Your task to perform on an android device: Clear all items from cart on walmart.com. Add razer blade to the cart on walmart.com, then select checkout. Image 0: 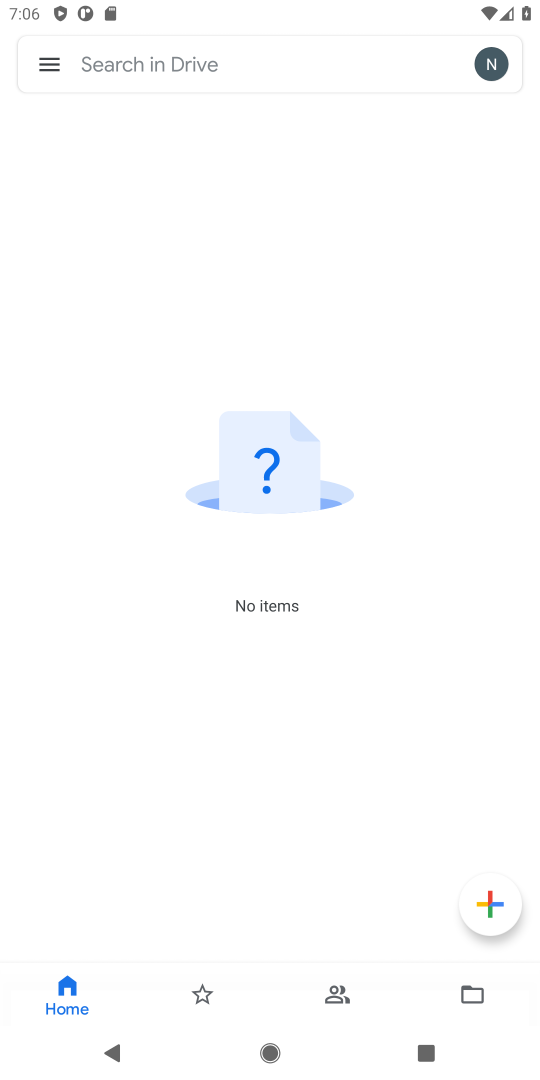
Step 0: press home button
Your task to perform on an android device: Clear all items from cart on walmart.com. Add razer blade to the cart on walmart.com, then select checkout. Image 1: 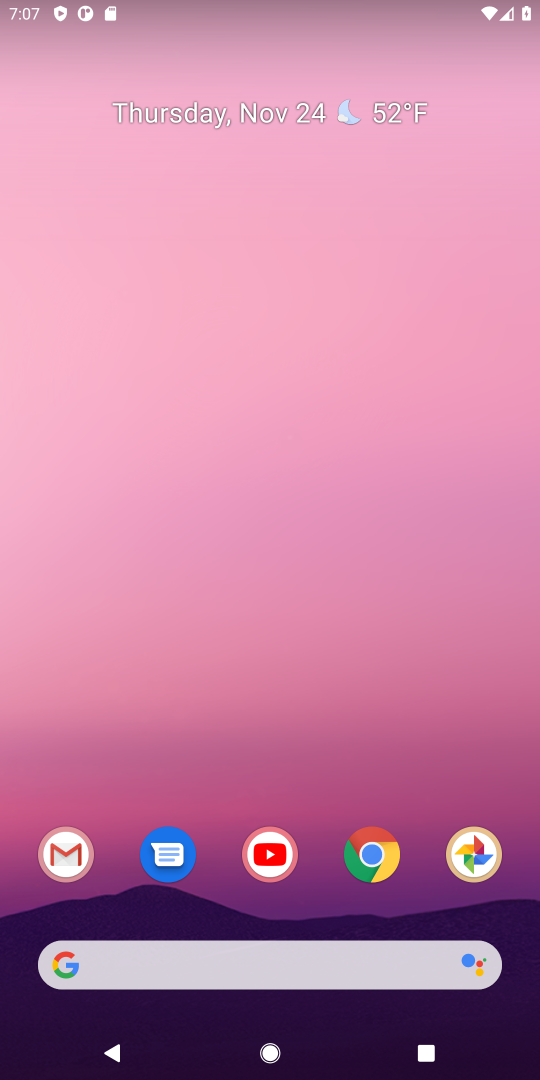
Step 1: click (365, 850)
Your task to perform on an android device: Clear all items from cart on walmart.com. Add razer blade to the cart on walmart.com, then select checkout. Image 2: 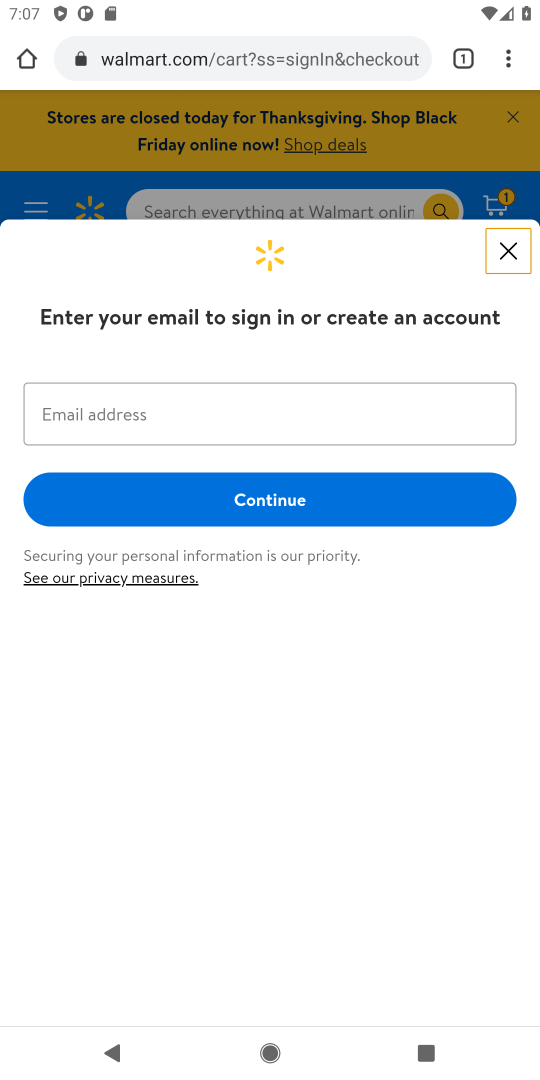
Step 2: click (510, 251)
Your task to perform on an android device: Clear all items from cart on walmart.com. Add razer blade to the cart on walmart.com, then select checkout. Image 3: 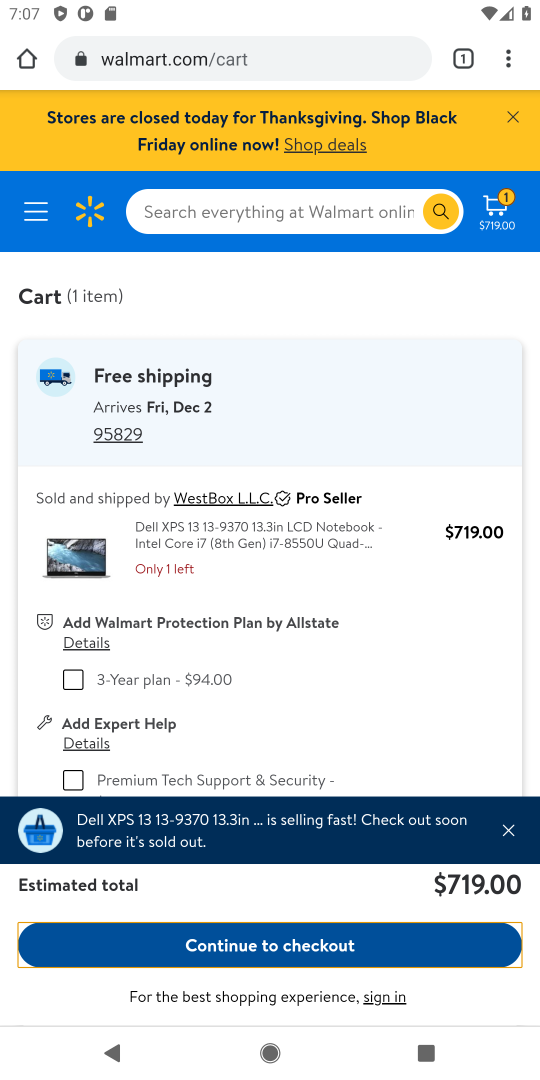
Step 3: drag from (197, 657) to (199, 349)
Your task to perform on an android device: Clear all items from cart on walmart.com. Add razer blade to the cart on walmart.com, then select checkout. Image 4: 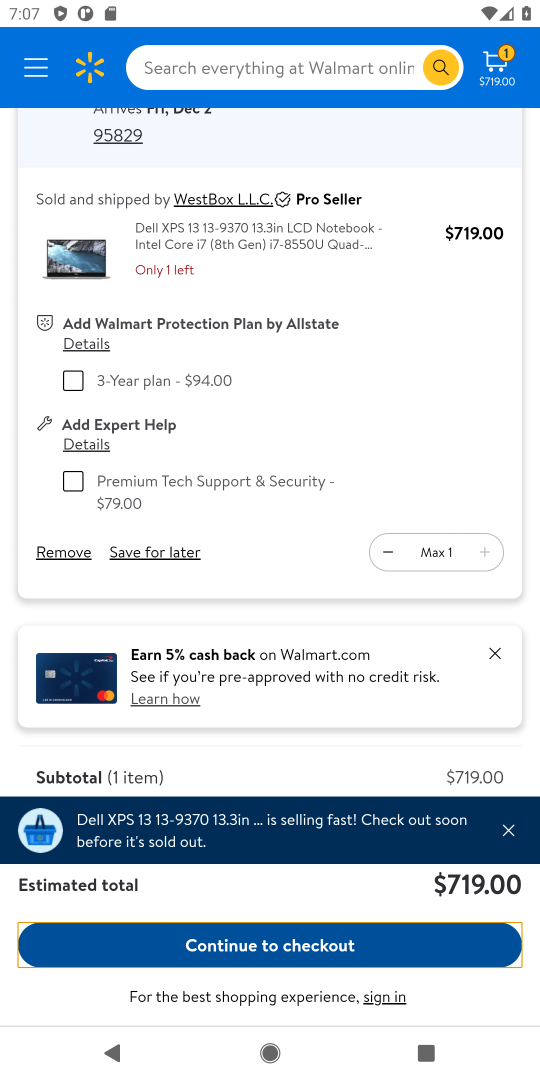
Step 4: click (39, 564)
Your task to perform on an android device: Clear all items from cart on walmart.com. Add razer blade to the cart on walmart.com, then select checkout. Image 5: 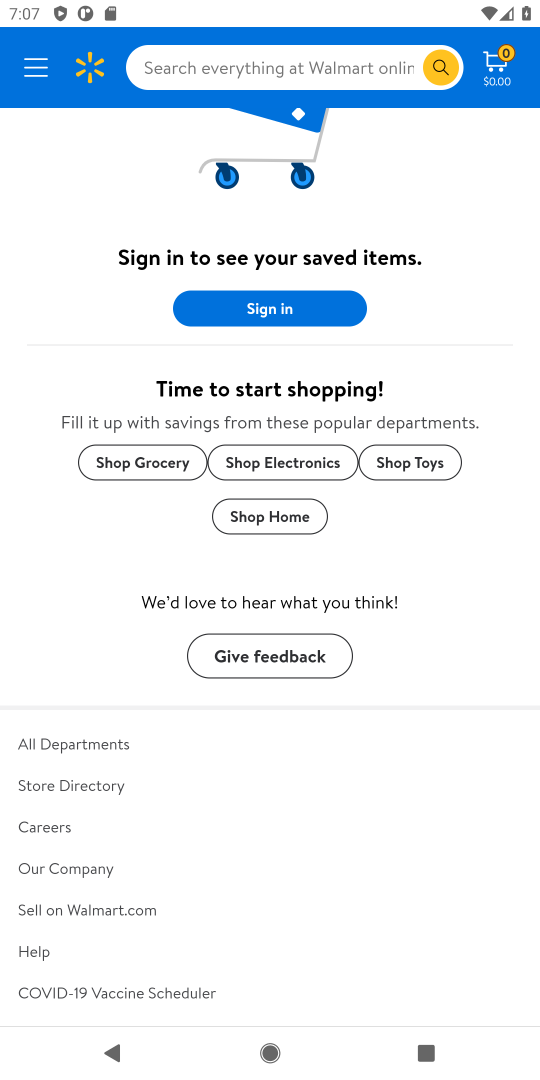
Step 5: click (167, 57)
Your task to perform on an android device: Clear all items from cart on walmart.com. Add razer blade to the cart on walmart.com, then select checkout. Image 6: 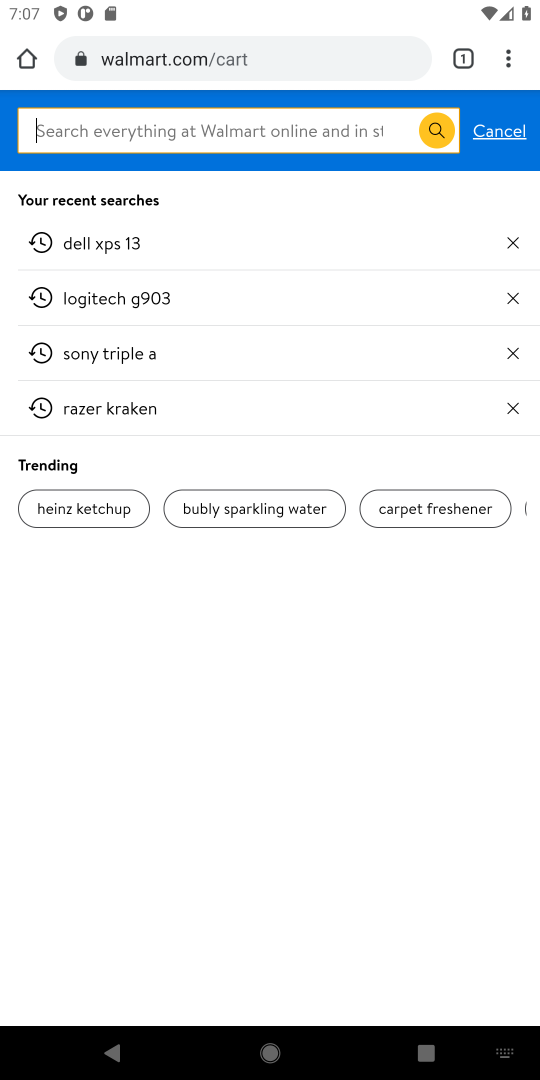
Step 6: type "razer blade"
Your task to perform on an android device: Clear all items from cart on walmart.com. Add razer blade to the cart on walmart.com, then select checkout. Image 7: 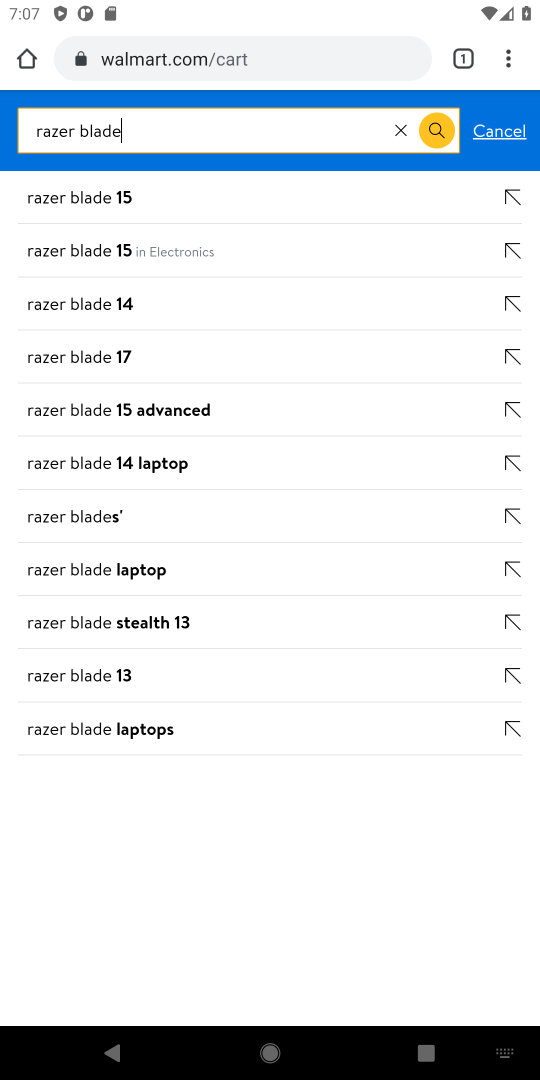
Step 7: click (84, 218)
Your task to perform on an android device: Clear all items from cart on walmart.com. Add razer blade to the cart on walmart.com, then select checkout. Image 8: 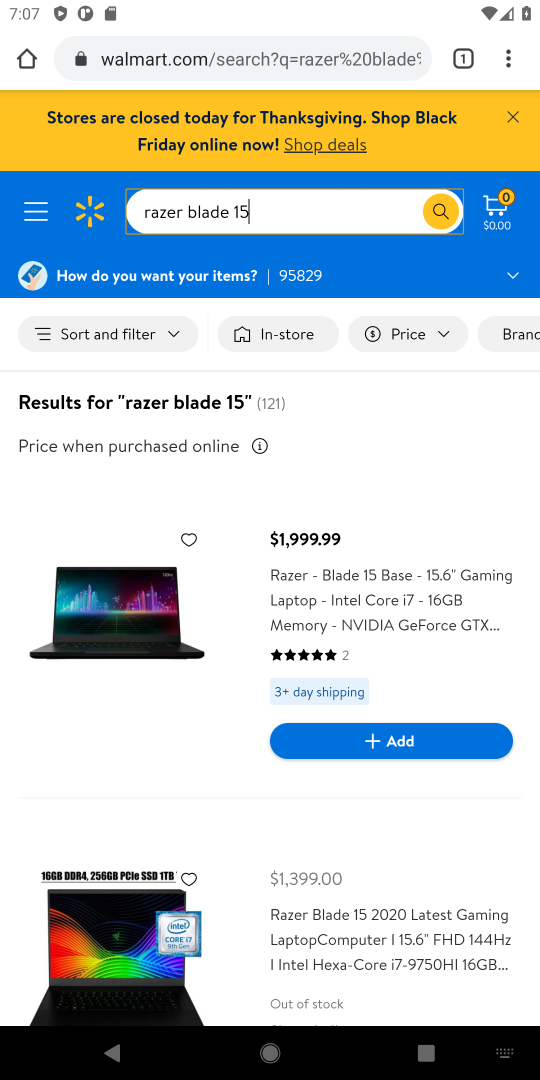
Step 8: click (382, 751)
Your task to perform on an android device: Clear all items from cart on walmart.com. Add razer blade to the cart on walmart.com, then select checkout. Image 9: 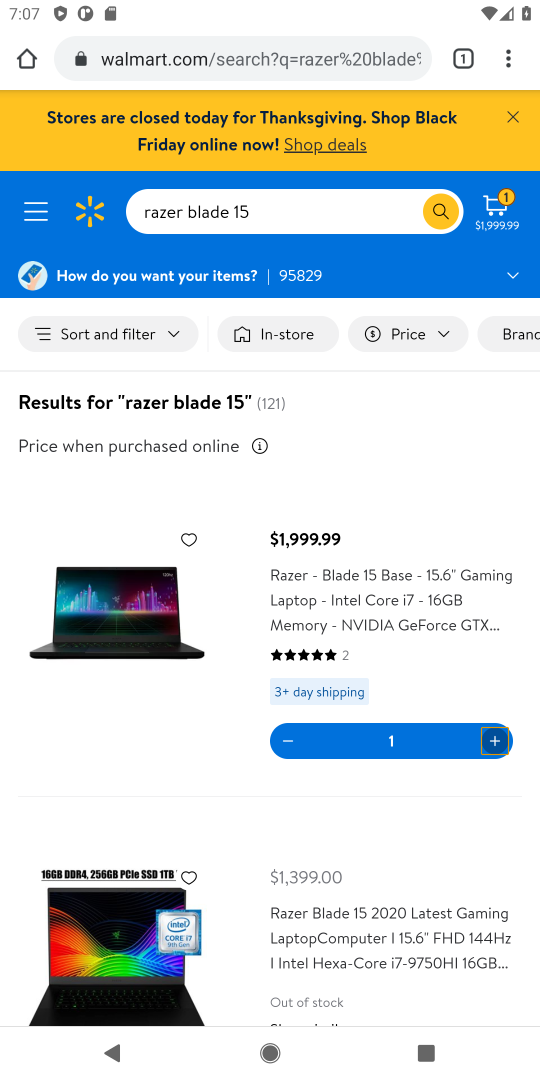
Step 9: click (498, 224)
Your task to perform on an android device: Clear all items from cart on walmart.com. Add razer blade to the cart on walmart.com, then select checkout. Image 10: 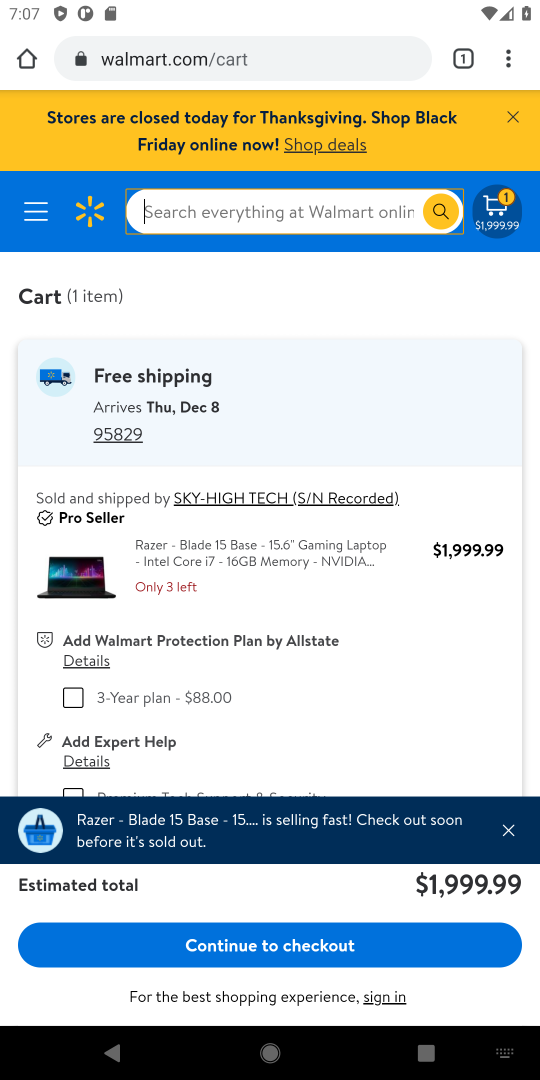
Step 10: click (256, 940)
Your task to perform on an android device: Clear all items from cart on walmart.com. Add razer blade to the cart on walmart.com, then select checkout. Image 11: 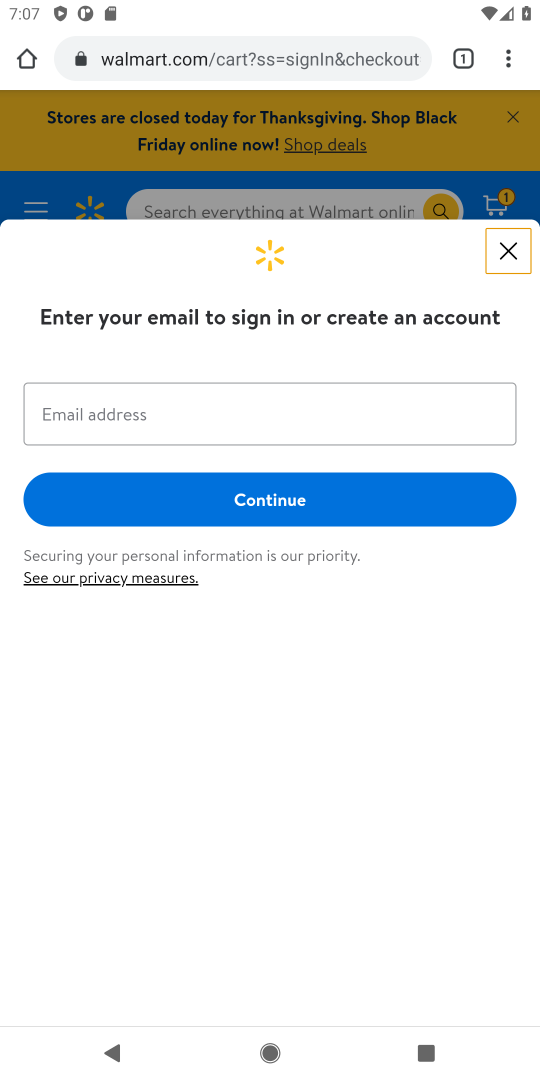
Step 11: task complete